Your task to perform on an android device: toggle notification dots Image 0: 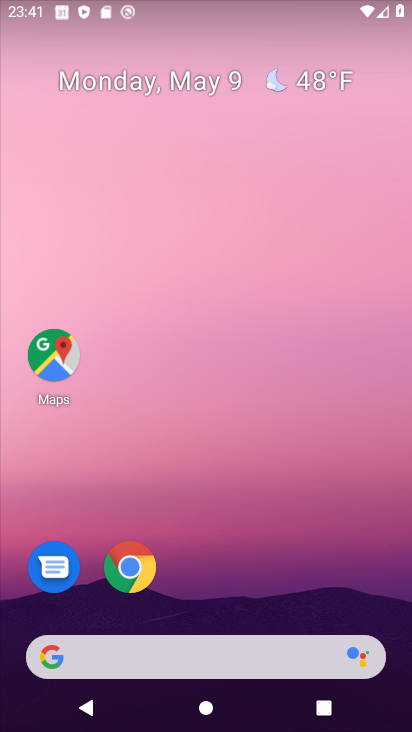
Step 0: drag from (245, 573) to (201, 103)
Your task to perform on an android device: toggle notification dots Image 1: 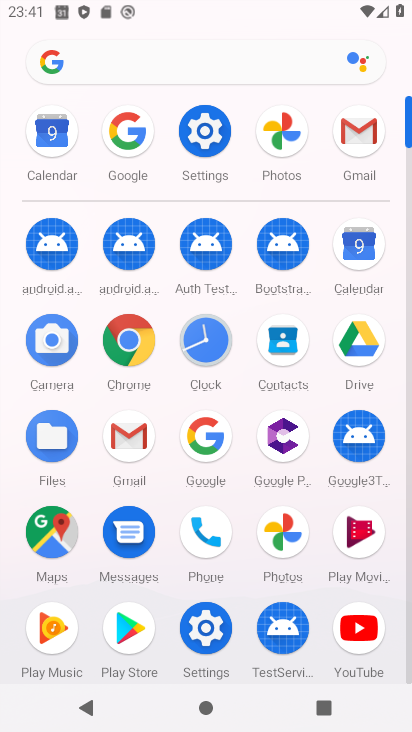
Step 1: click (207, 130)
Your task to perform on an android device: toggle notification dots Image 2: 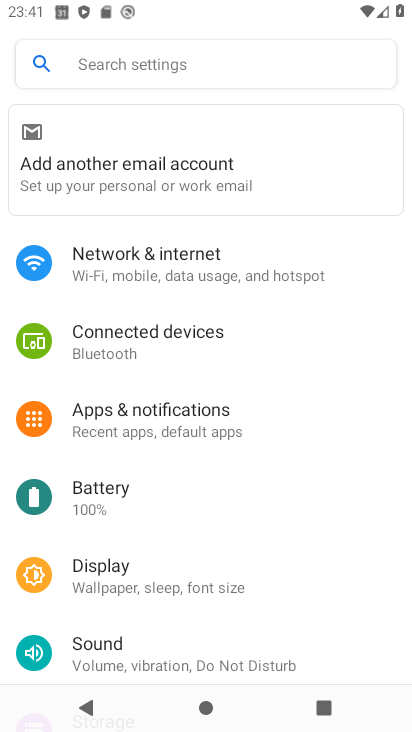
Step 2: click (165, 412)
Your task to perform on an android device: toggle notification dots Image 3: 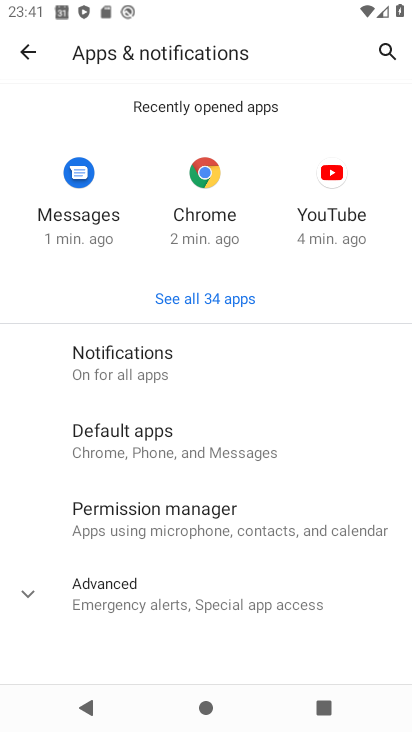
Step 3: click (124, 351)
Your task to perform on an android device: toggle notification dots Image 4: 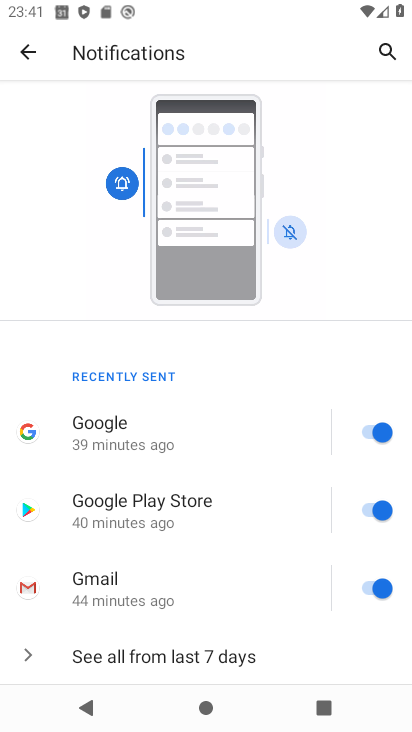
Step 4: drag from (121, 467) to (172, 341)
Your task to perform on an android device: toggle notification dots Image 5: 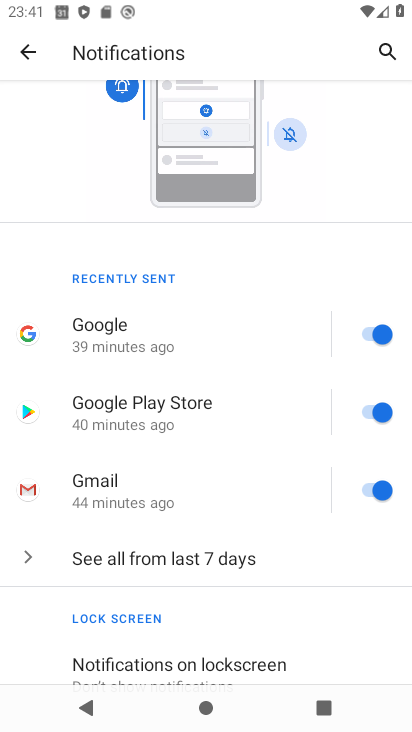
Step 5: drag from (135, 446) to (169, 325)
Your task to perform on an android device: toggle notification dots Image 6: 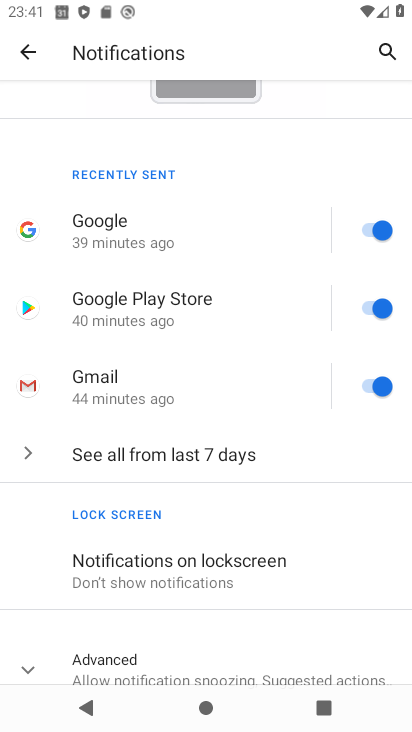
Step 6: drag from (156, 527) to (192, 402)
Your task to perform on an android device: toggle notification dots Image 7: 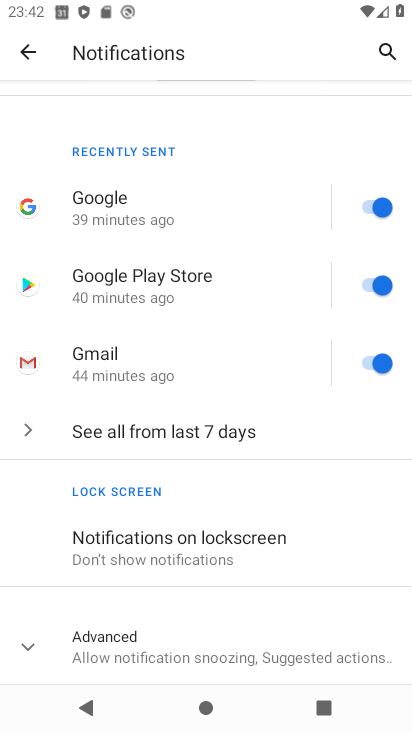
Step 7: click (128, 647)
Your task to perform on an android device: toggle notification dots Image 8: 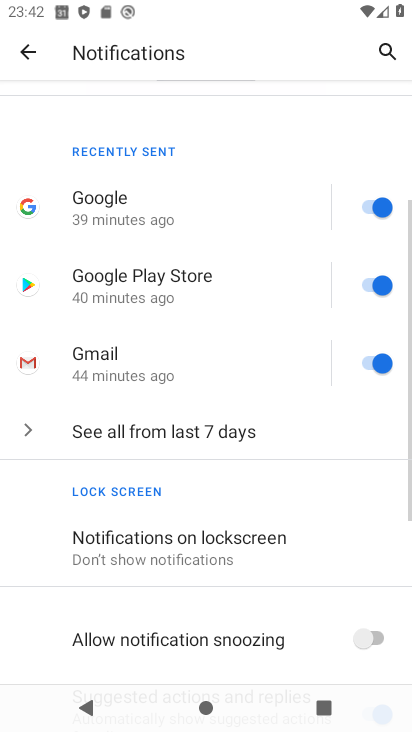
Step 8: drag from (149, 563) to (192, 426)
Your task to perform on an android device: toggle notification dots Image 9: 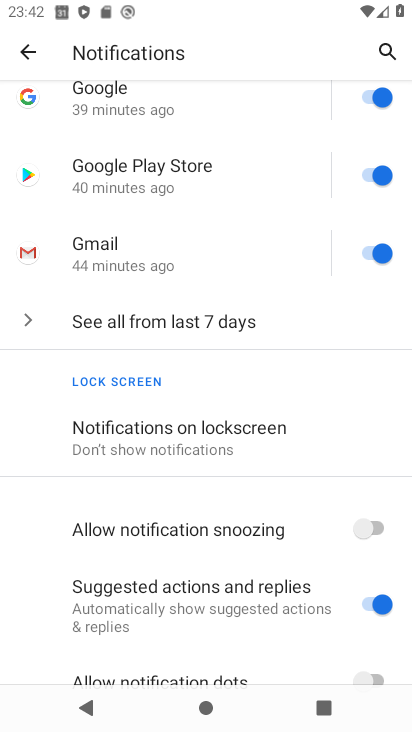
Step 9: drag from (172, 626) to (255, 459)
Your task to perform on an android device: toggle notification dots Image 10: 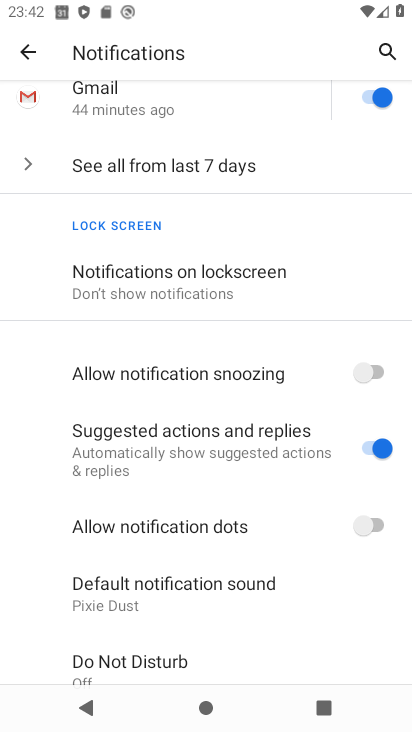
Step 10: click (356, 526)
Your task to perform on an android device: toggle notification dots Image 11: 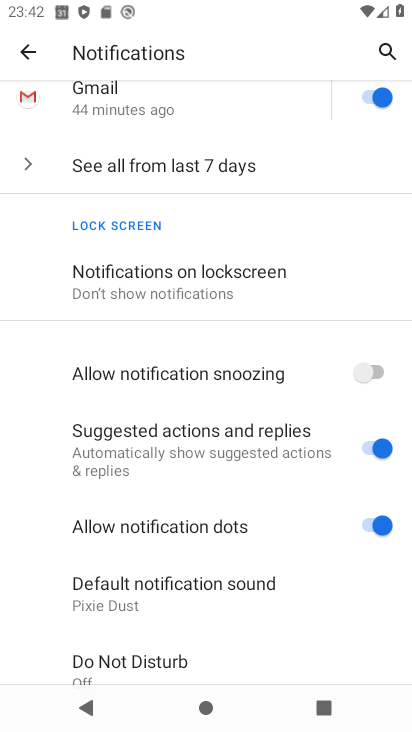
Step 11: task complete